Your task to perform on an android device: turn on showing notifications on the lock screen Image 0: 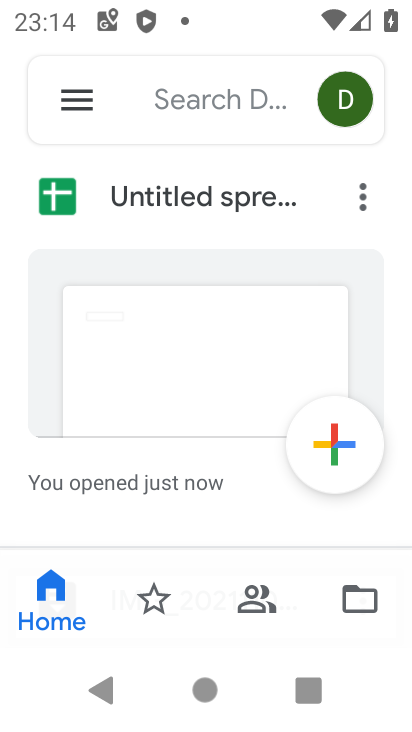
Step 0: press home button
Your task to perform on an android device: turn on showing notifications on the lock screen Image 1: 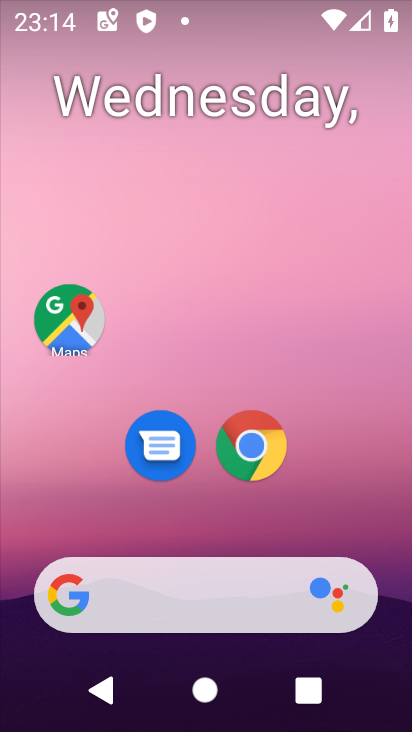
Step 1: drag from (313, 494) to (315, 254)
Your task to perform on an android device: turn on showing notifications on the lock screen Image 2: 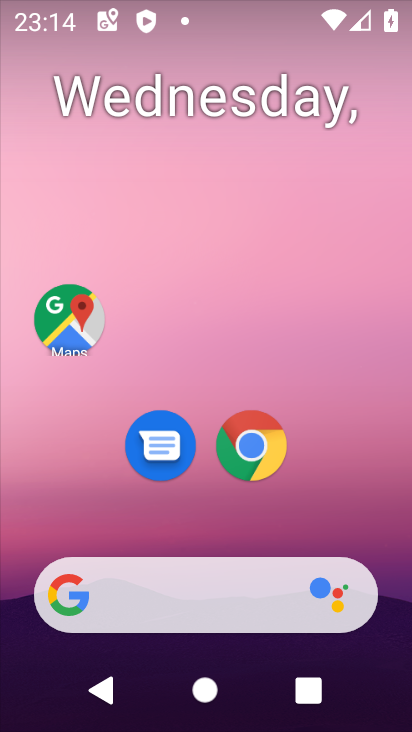
Step 2: drag from (293, 521) to (283, 200)
Your task to perform on an android device: turn on showing notifications on the lock screen Image 3: 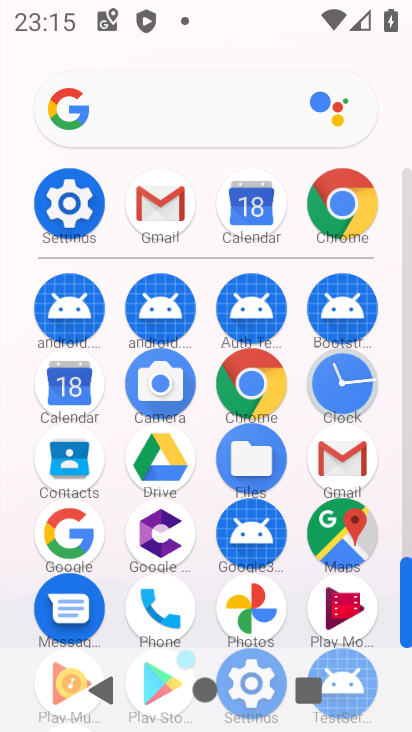
Step 3: click (64, 192)
Your task to perform on an android device: turn on showing notifications on the lock screen Image 4: 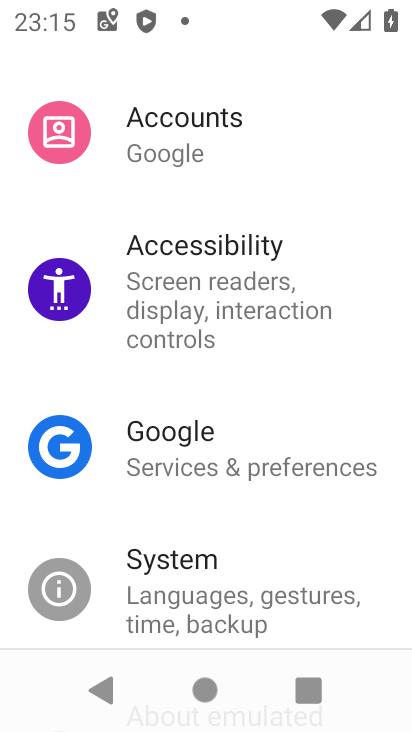
Step 4: drag from (216, 189) to (246, 629)
Your task to perform on an android device: turn on showing notifications on the lock screen Image 5: 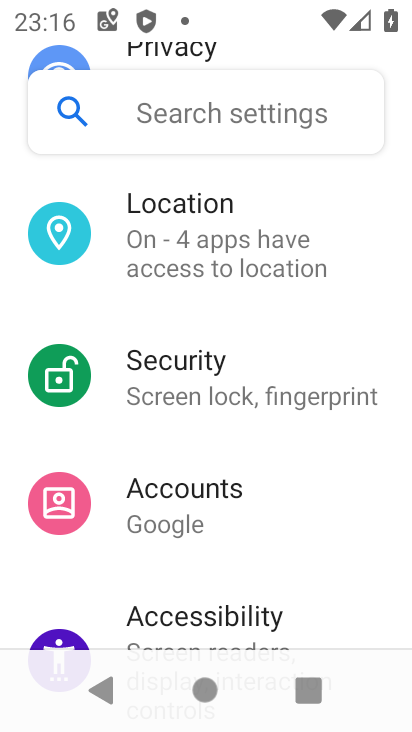
Step 5: drag from (230, 235) to (215, 558)
Your task to perform on an android device: turn on showing notifications on the lock screen Image 6: 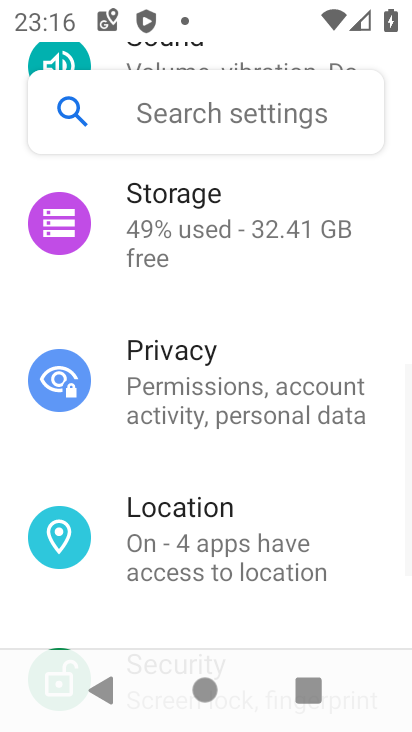
Step 6: drag from (197, 213) to (197, 534)
Your task to perform on an android device: turn on showing notifications on the lock screen Image 7: 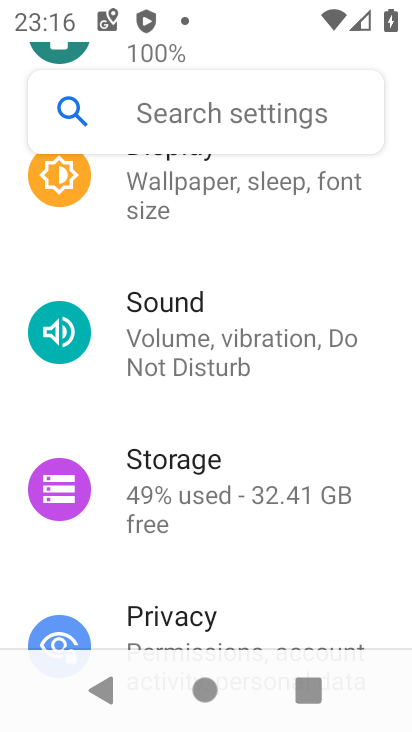
Step 7: drag from (207, 209) to (195, 493)
Your task to perform on an android device: turn on showing notifications on the lock screen Image 8: 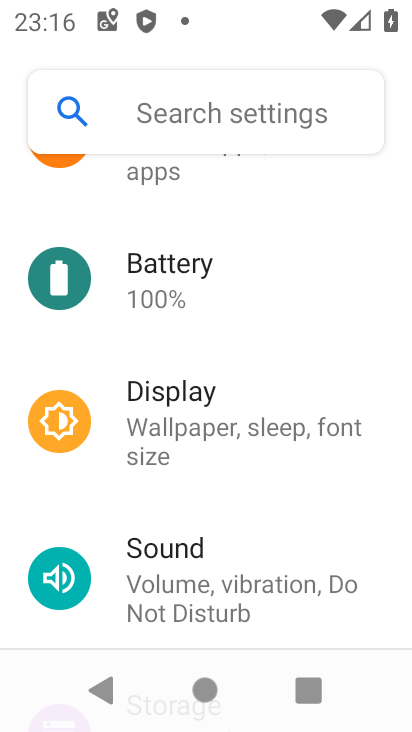
Step 8: drag from (237, 201) to (217, 579)
Your task to perform on an android device: turn on showing notifications on the lock screen Image 9: 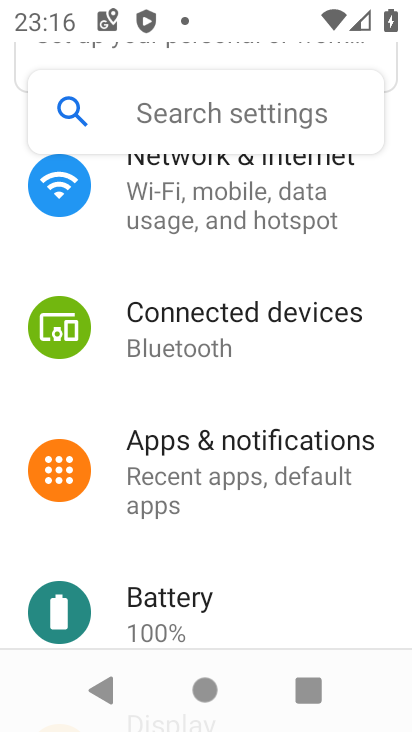
Step 9: click (226, 197)
Your task to perform on an android device: turn on showing notifications on the lock screen Image 10: 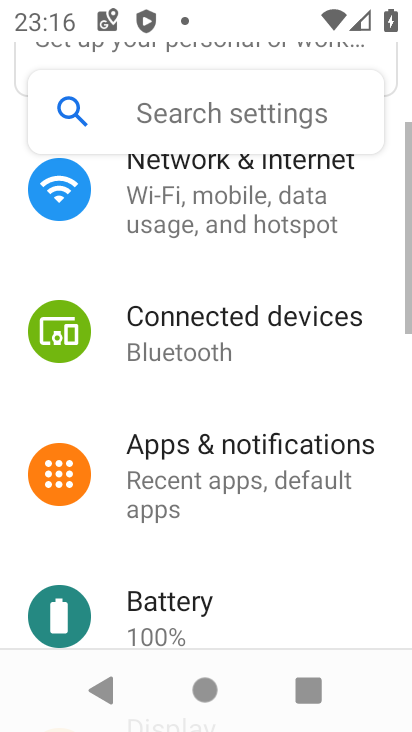
Step 10: drag from (225, 235) to (220, 413)
Your task to perform on an android device: turn on showing notifications on the lock screen Image 11: 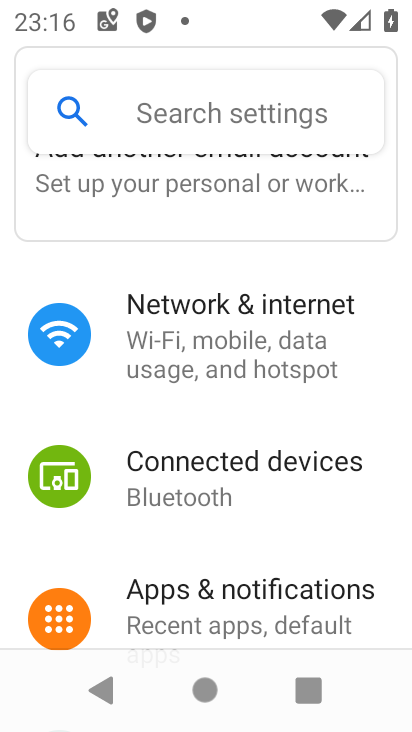
Step 11: click (178, 336)
Your task to perform on an android device: turn on showing notifications on the lock screen Image 12: 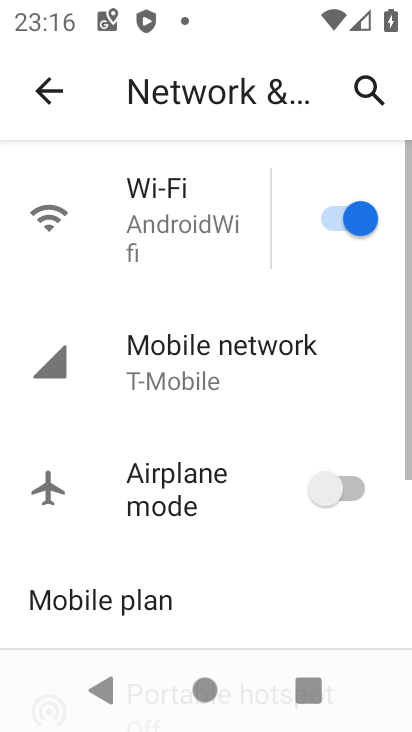
Step 12: click (68, 84)
Your task to perform on an android device: turn on showing notifications on the lock screen Image 13: 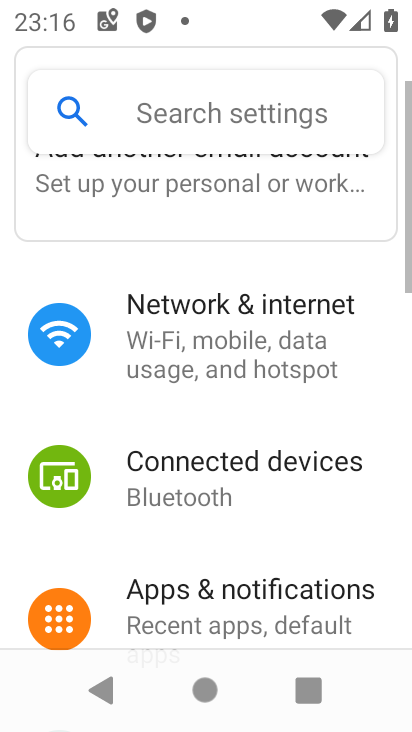
Step 13: task complete